Your task to perform on an android device: Go to Wikipedia Image 0: 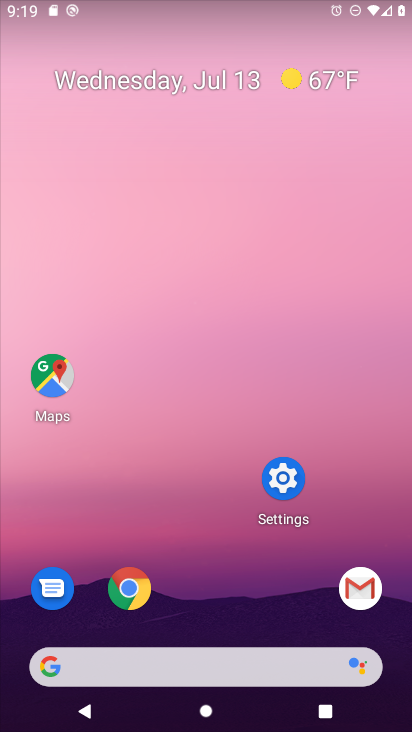
Step 0: press home button
Your task to perform on an android device: Go to Wikipedia Image 1: 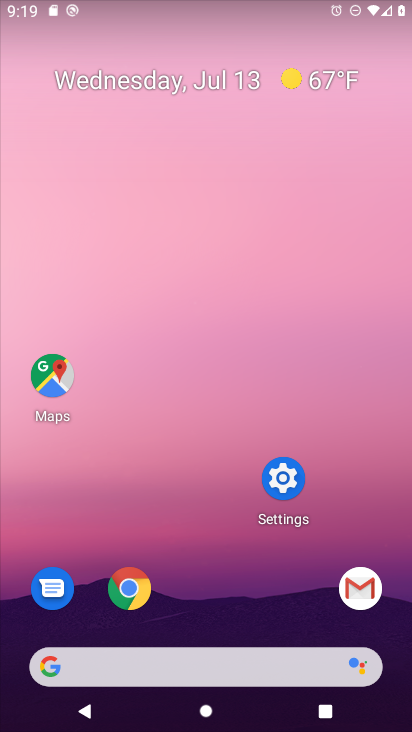
Step 1: click (144, 585)
Your task to perform on an android device: Go to Wikipedia Image 2: 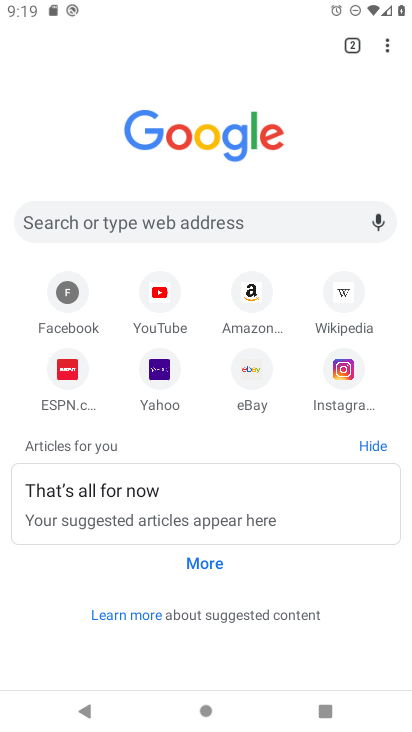
Step 2: click (335, 314)
Your task to perform on an android device: Go to Wikipedia Image 3: 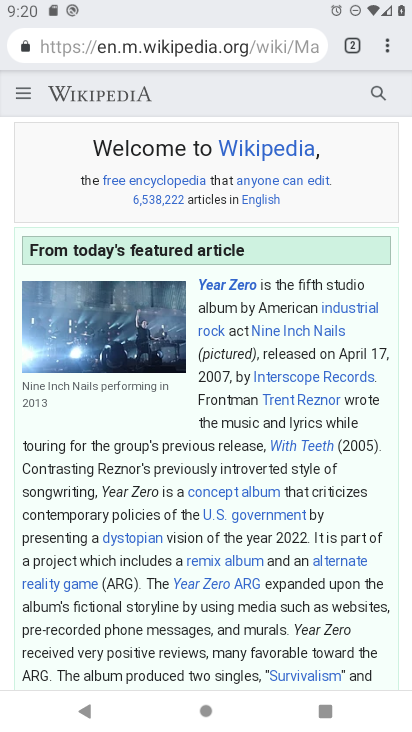
Step 3: task complete